Your task to perform on an android device: turn off picture-in-picture Image 0: 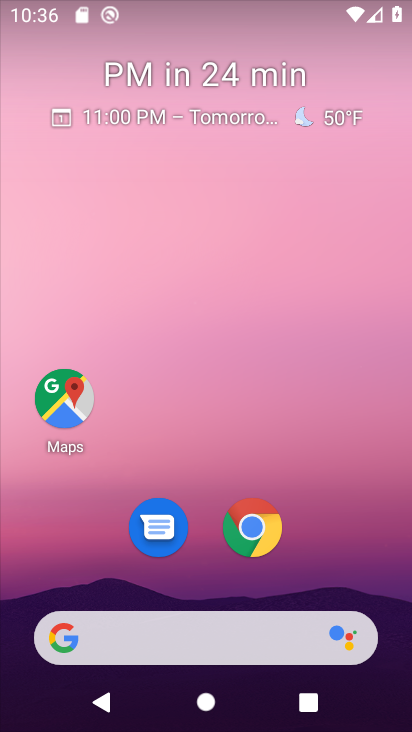
Step 0: click (266, 535)
Your task to perform on an android device: turn off picture-in-picture Image 1: 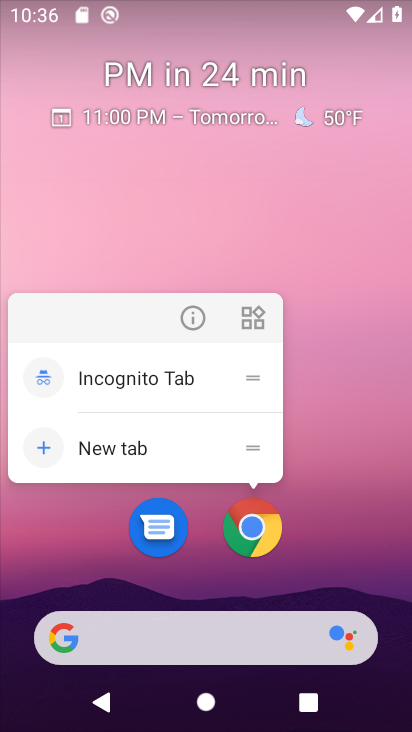
Step 1: click (189, 327)
Your task to perform on an android device: turn off picture-in-picture Image 2: 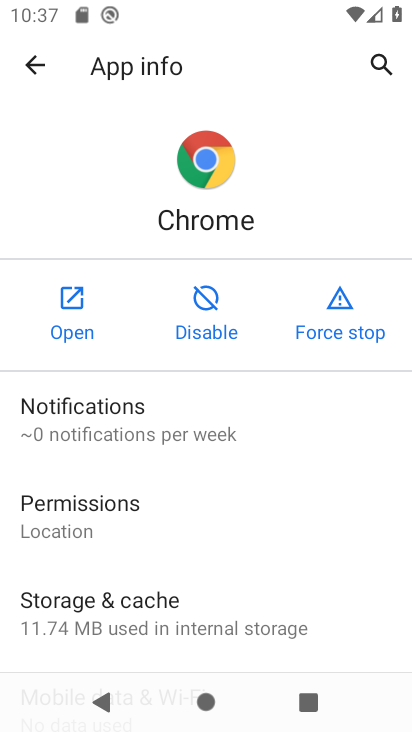
Step 2: drag from (312, 579) to (247, 330)
Your task to perform on an android device: turn off picture-in-picture Image 3: 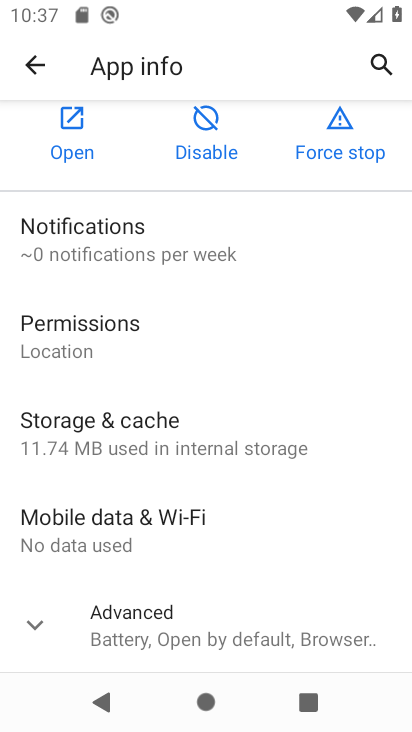
Step 3: drag from (309, 615) to (206, 242)
Your task to perform on an android device: turn off picture-in-picture Image 4: 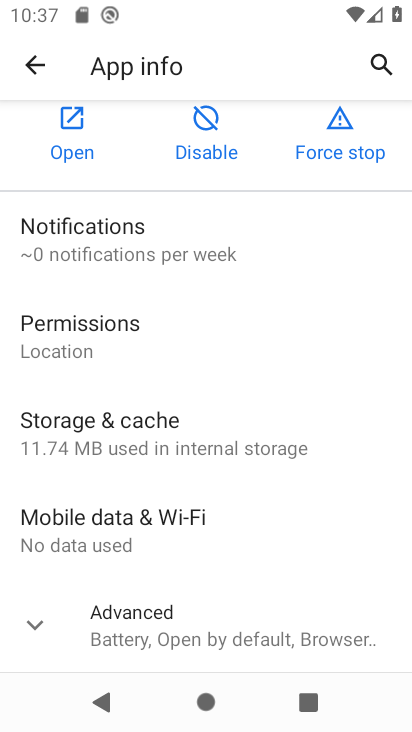
Step 4: click (220, 613)
Your task to perform on an android device: turn off picture-in-picture Image 5: 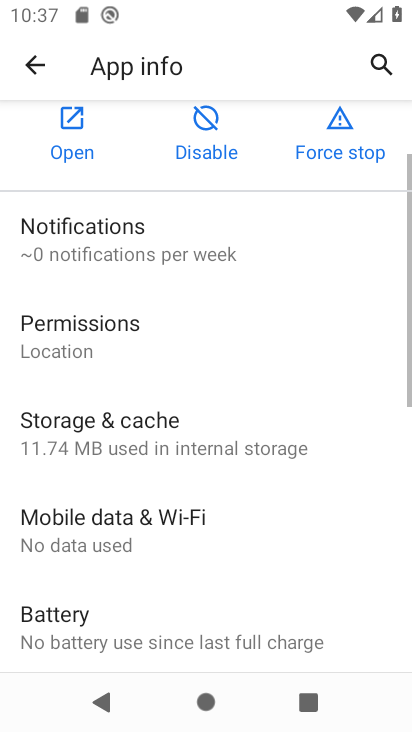
Step 5: drag from (220, 613) to (140, 191)
Your task to perform on an android device: turn off picture-in-picture Image 6: 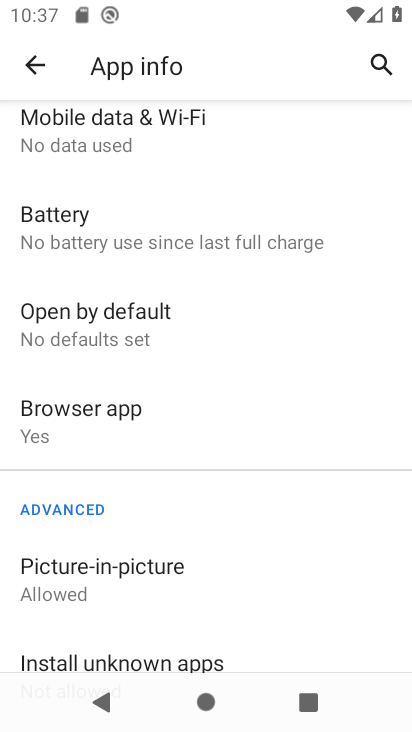
Step 6: click (226, 573)
Your task to perform on an android device: turn off picture-in-picture Image 7: 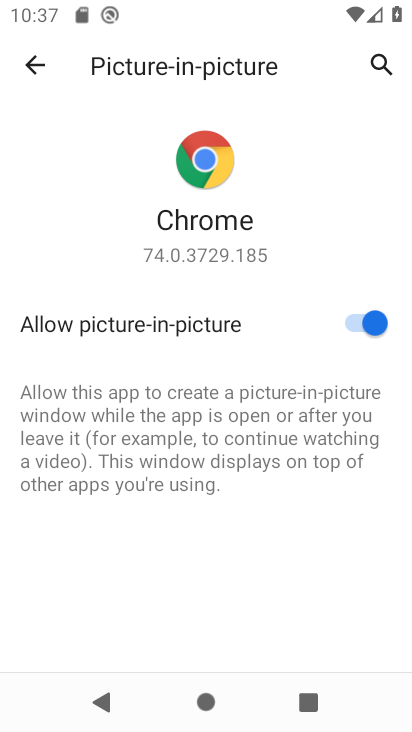
Step 7: click (347, 326)
Your task to perform on an android device: turn off picture-in-picture Image 8: 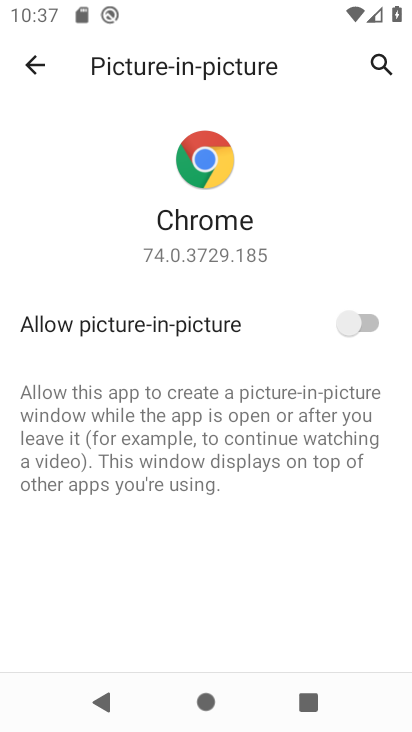
Step 8: task complete